Your task to perform on an android device: Show the shopping cart on bestbuy. Add "asus zenbook" to the cart on bestbuy, then select checkout. Image 0: 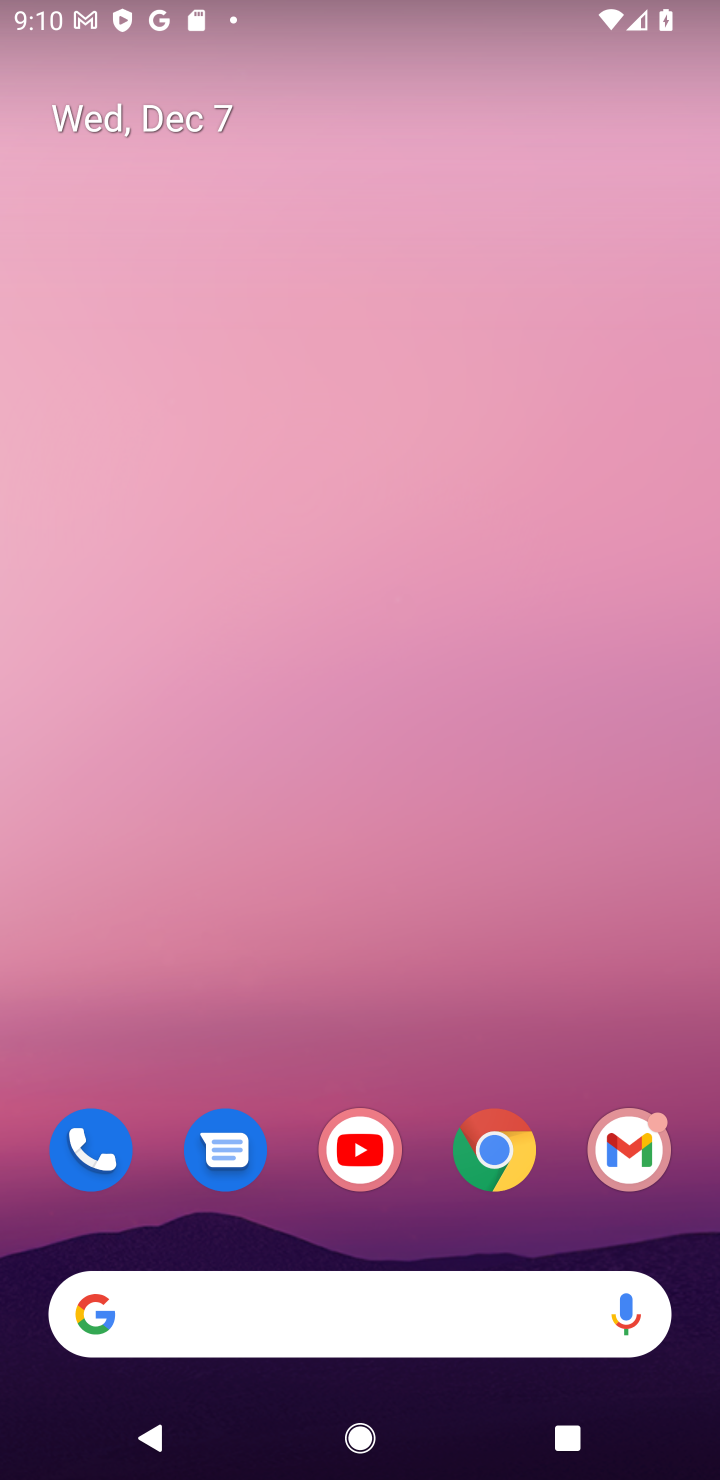
Step 0: click (497, 1160)
Your task to perform on an android device: Show the shopping cart on bestbuy. Add "asus zenbook" to the cart on bestbuy, then select checkout. Image 1: 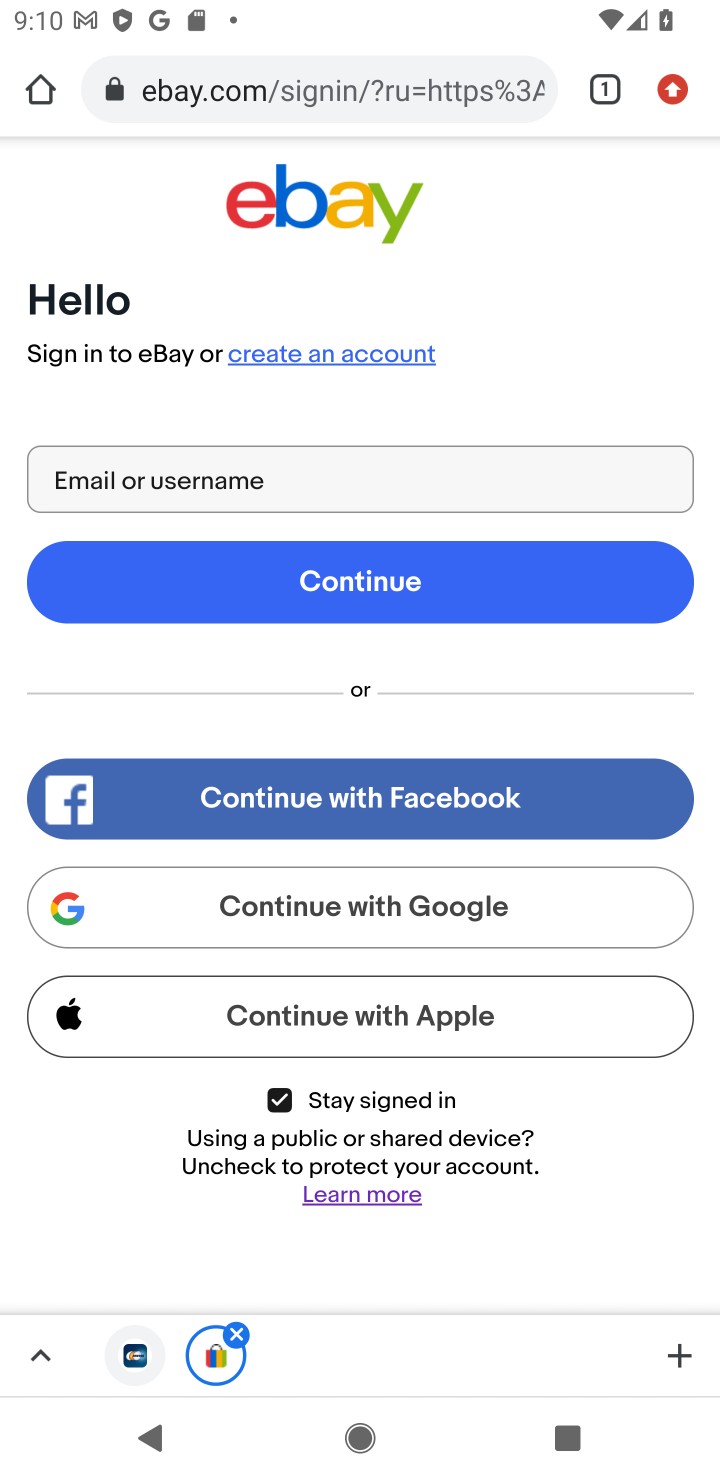
Step 1: click (286, 92)
Your task to perform on an android device: Show the shopping cart on bestbuy. Add "asus zenbook" to the cart on bestbuy, then select checkout. Image 2: 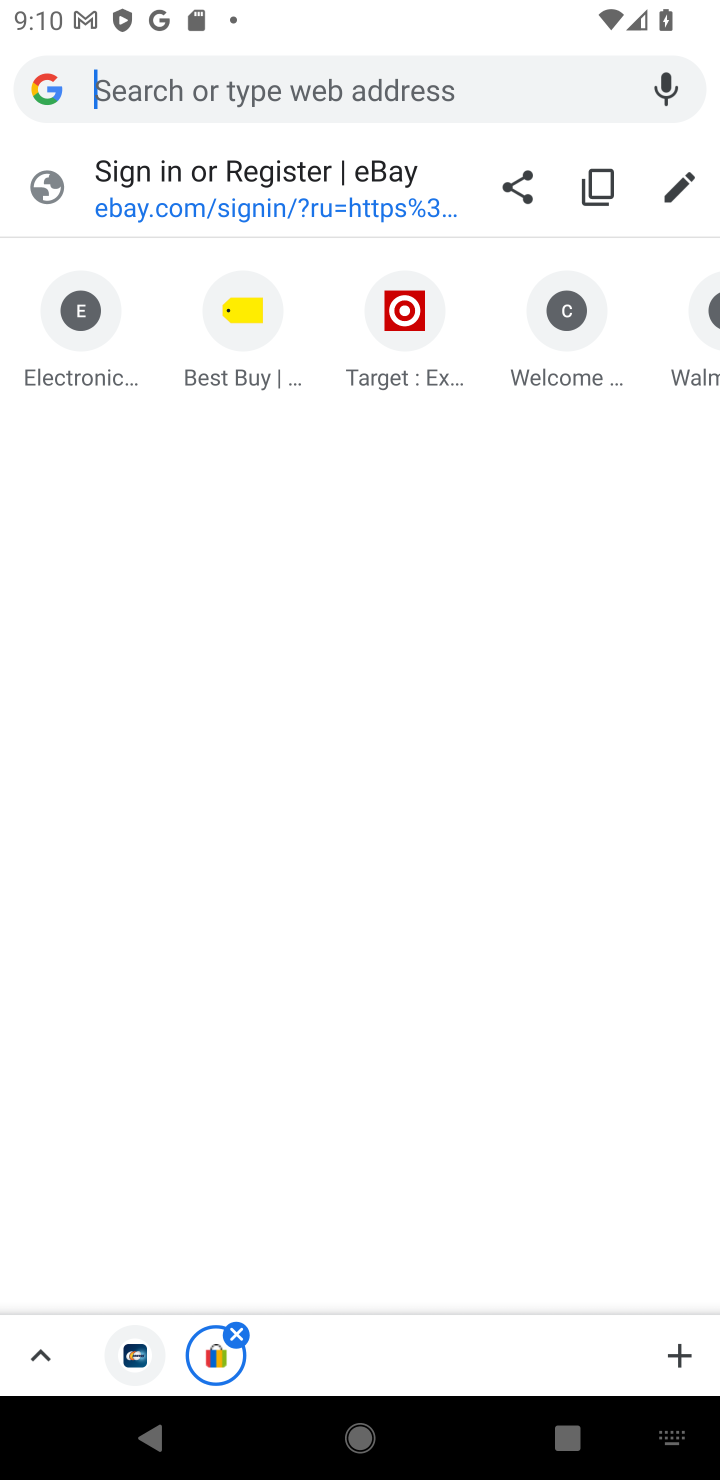
Step 2: click (260, 356)
Your task to perform on an android device: Show the shopping cart on bestbuy. Add "asus zenbook" to the cart on bestbuy, then select checkout. Image 3: 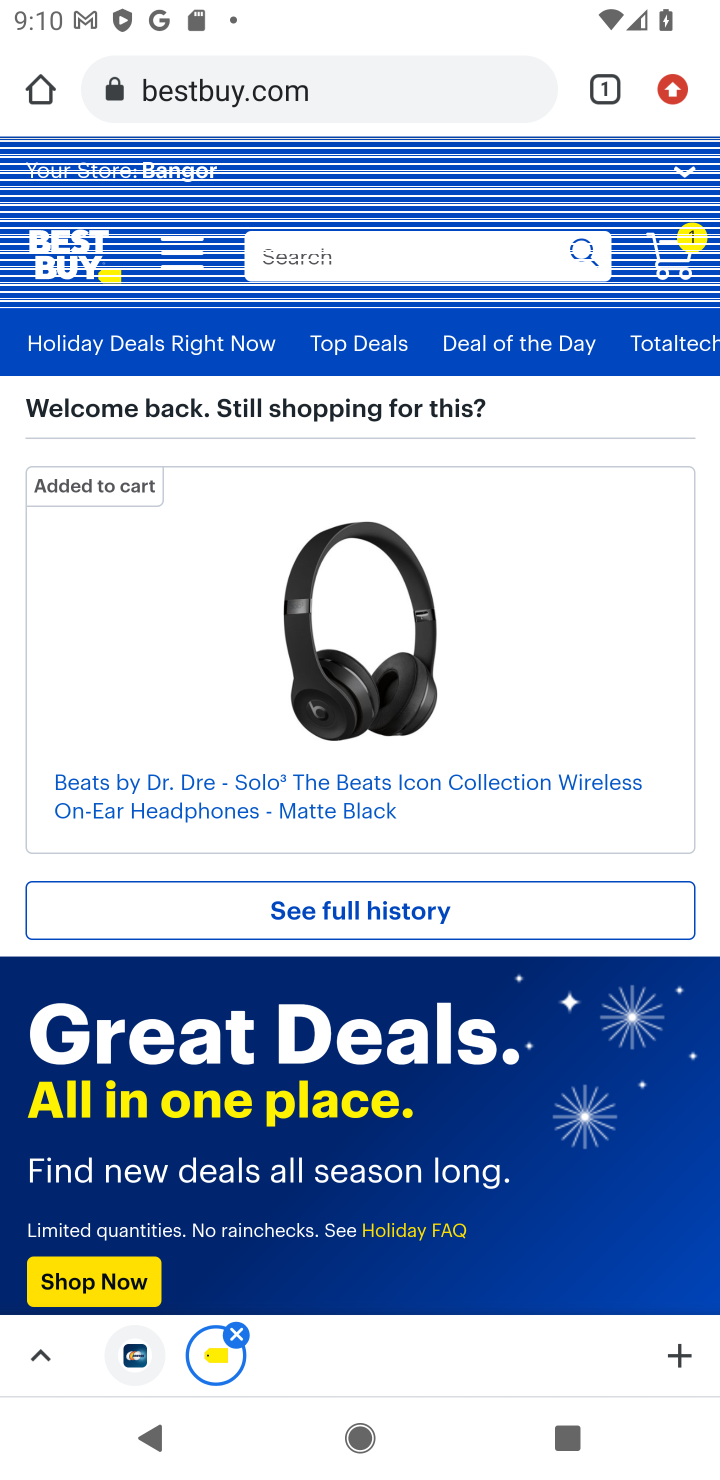
Step 3: click (665, 266)
Your task to perform on an android device: Show the shopping cart on bestbuy. Add "asus zenbook" to the cart on bestbuy, then select checkout. Image 4: 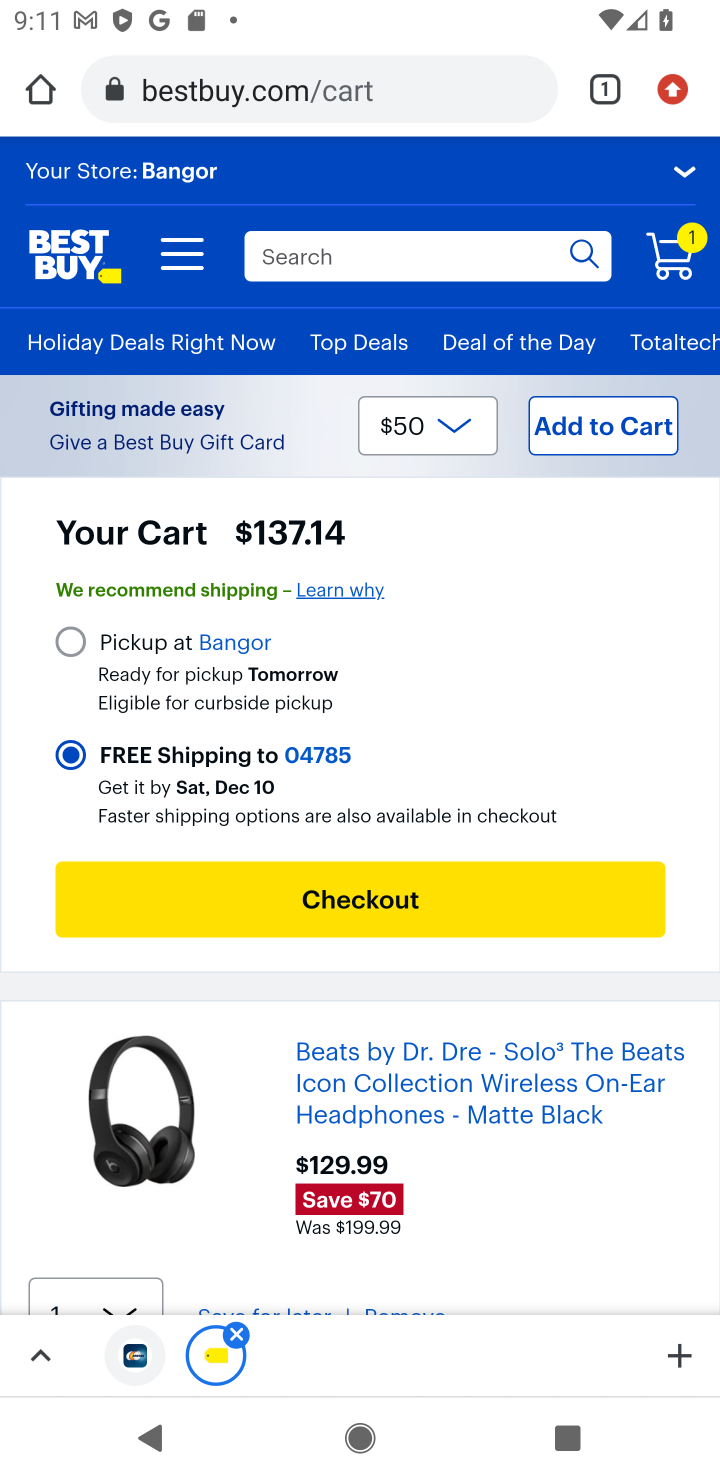
Step 4: click (377, 265)
Your task to perform on an android device: Show the shopping cart on bestbuy. Add "asus zenbook" to the cart on bestbuy, then select checkout. Image 5: 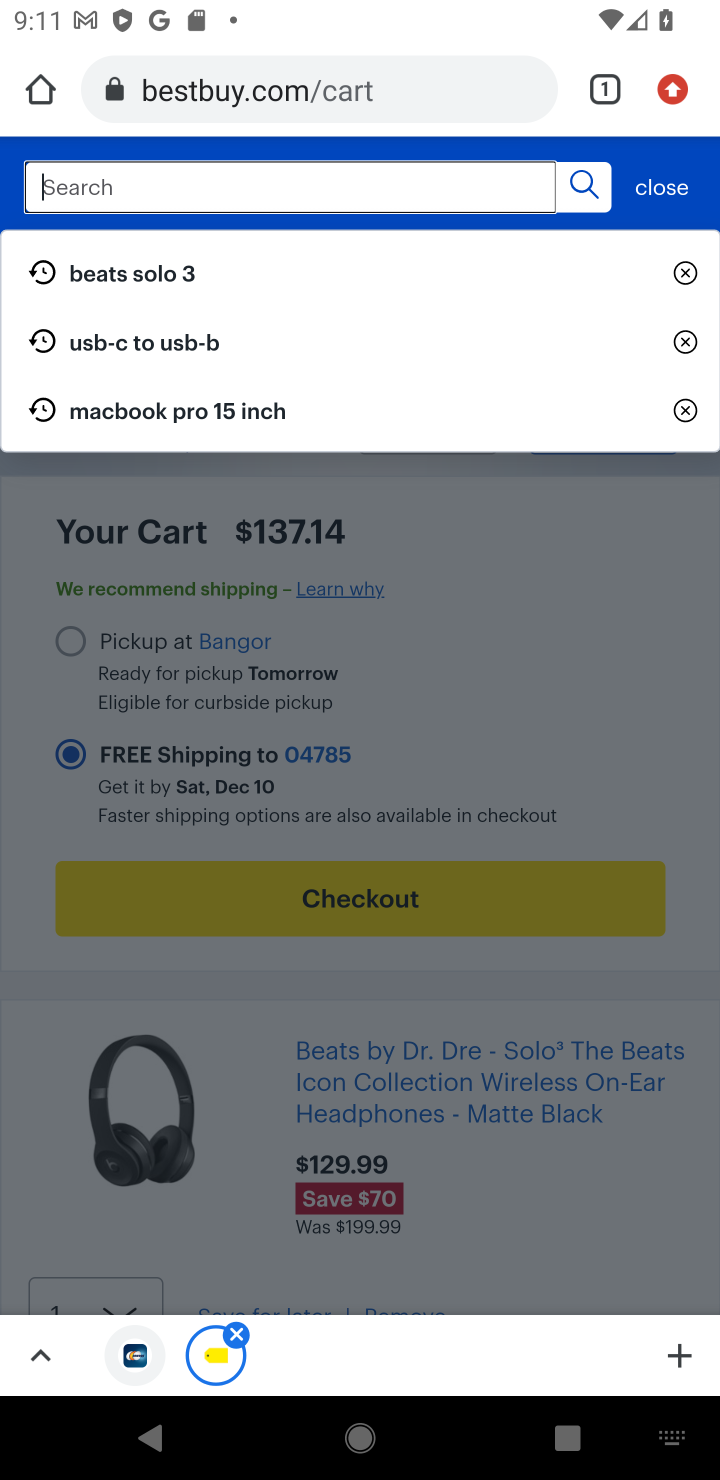
Step 5: type "asus zenbook"
Your task to perform on an android device: Show the shopping cart on bestbuy. Add "asus zenbook" to the cart on bestbuy, then select checkout. Image 6: 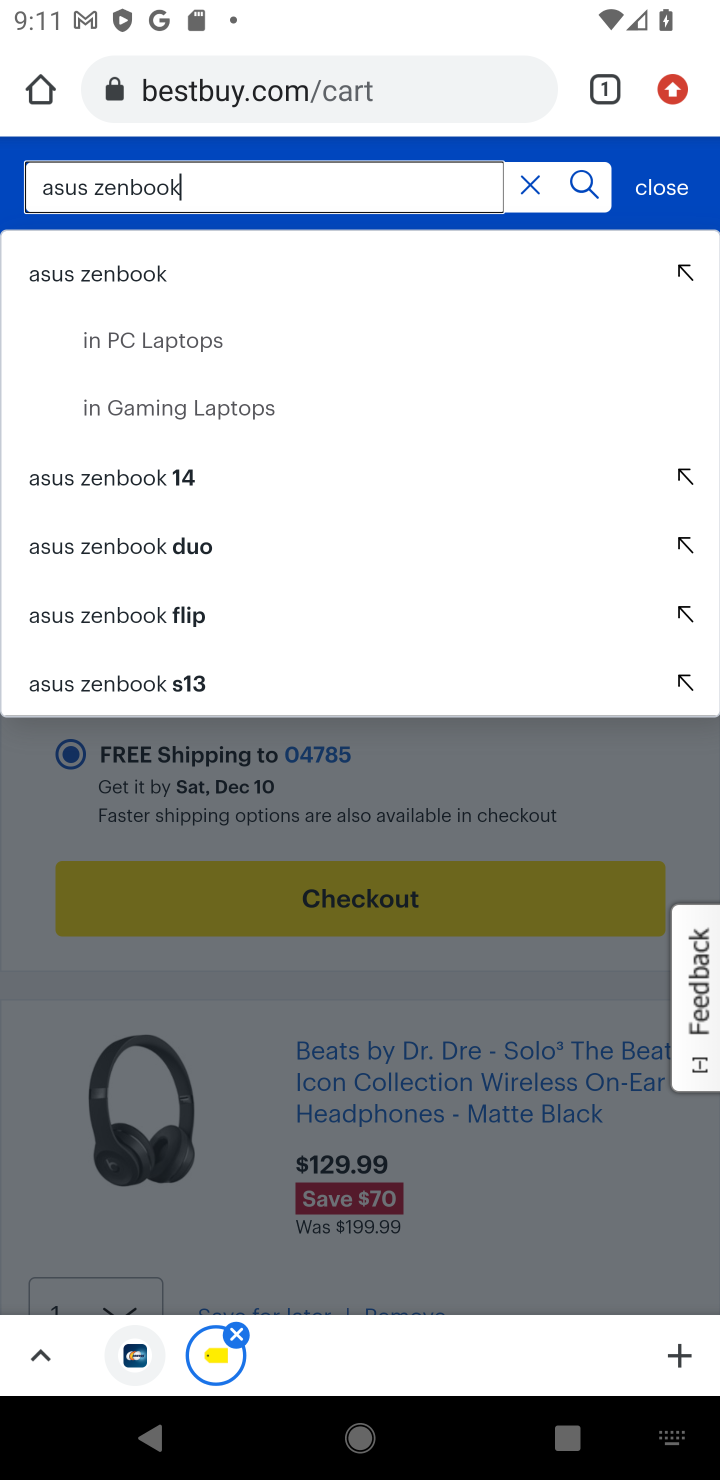
Step 6: press enter
Your task to perform on an android device: Show the shopping cart on bestbuy. Add "asus zenbook" to the cart on bestbuy, then select checkout. Image 7: 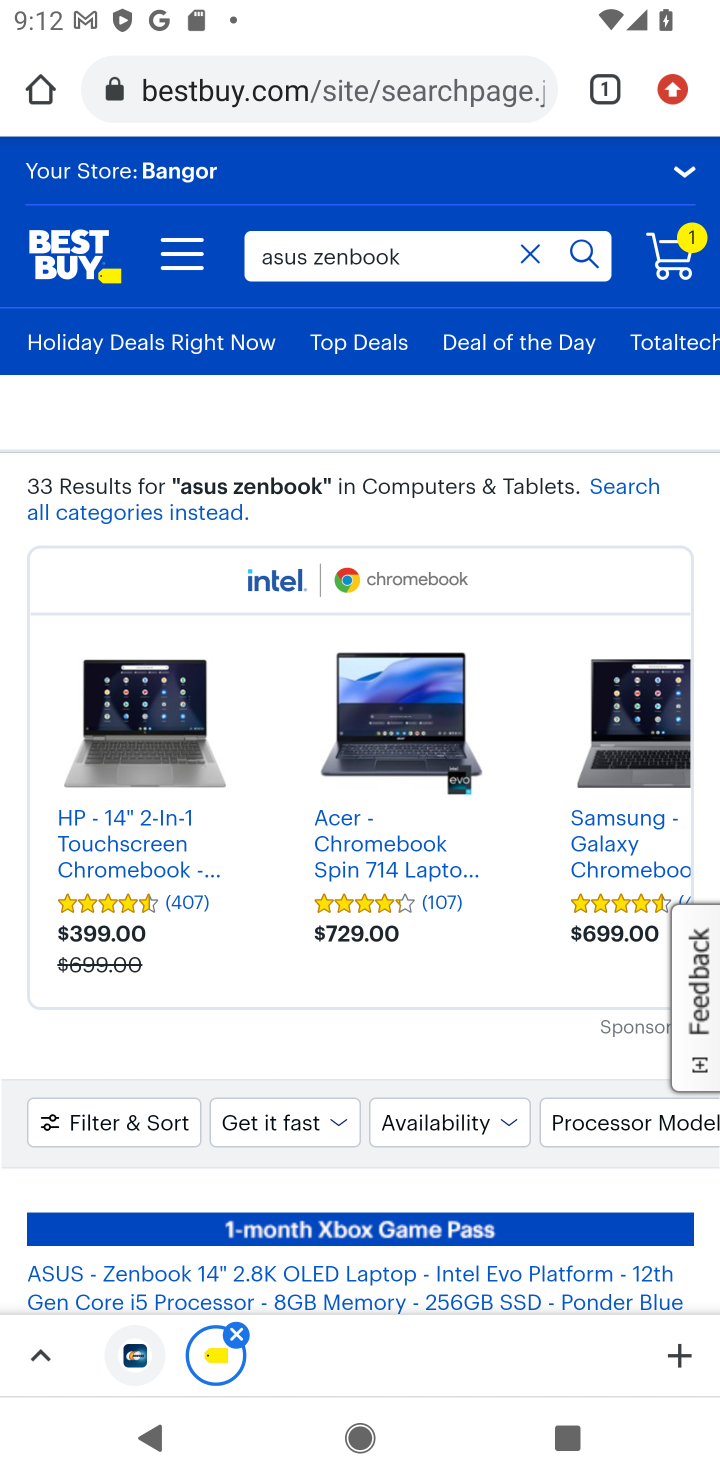
Step 7: drag from (462, 1104) to (595, 418)
Your task to perform on an android device: Show the shopping cart on bestbuy. Add "asus zenbook" to the cart on bestbuy, then select checkout. Image 8: 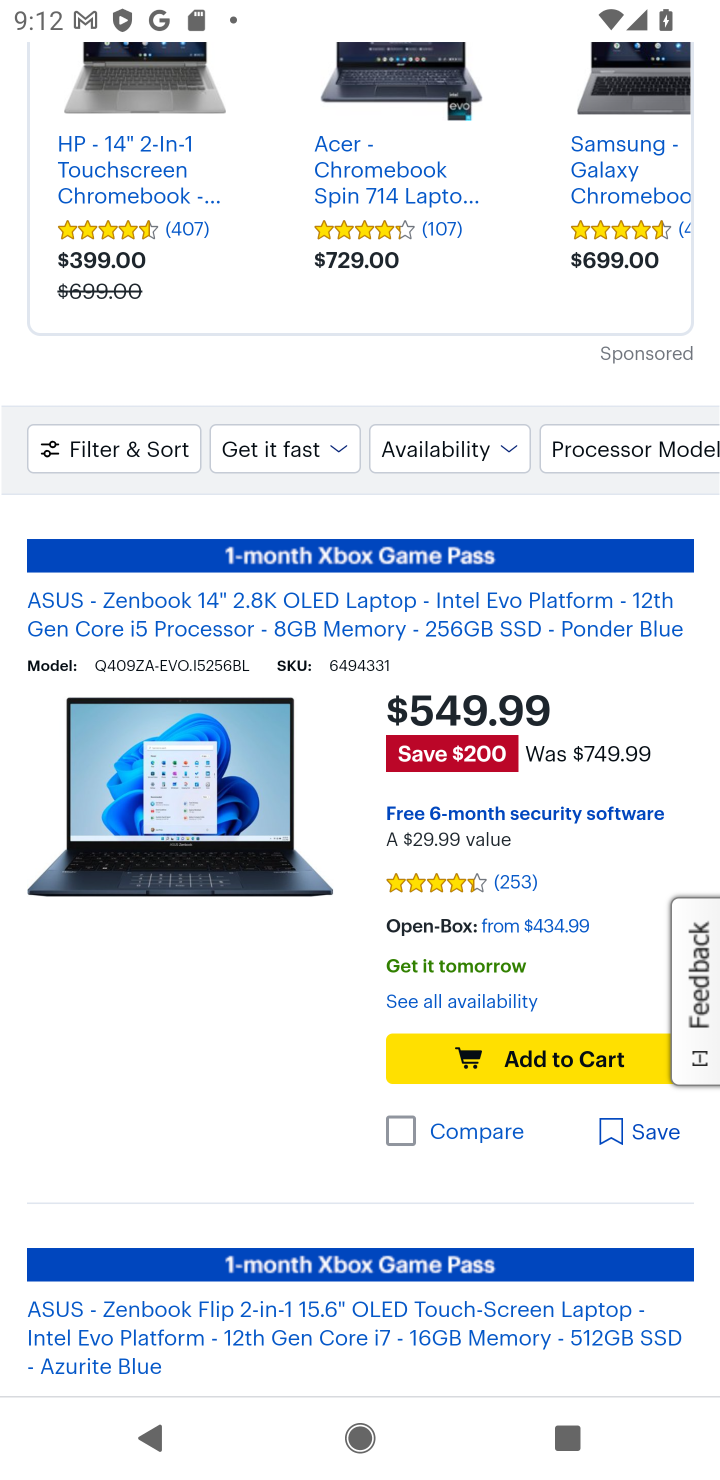
Step 8: click (508, 1068)
Your task to perform on an android device: Show the shopping cart on bestbuy. Add "asus zenbook" to the cart on bestbuy, then select checkout. Image 9: 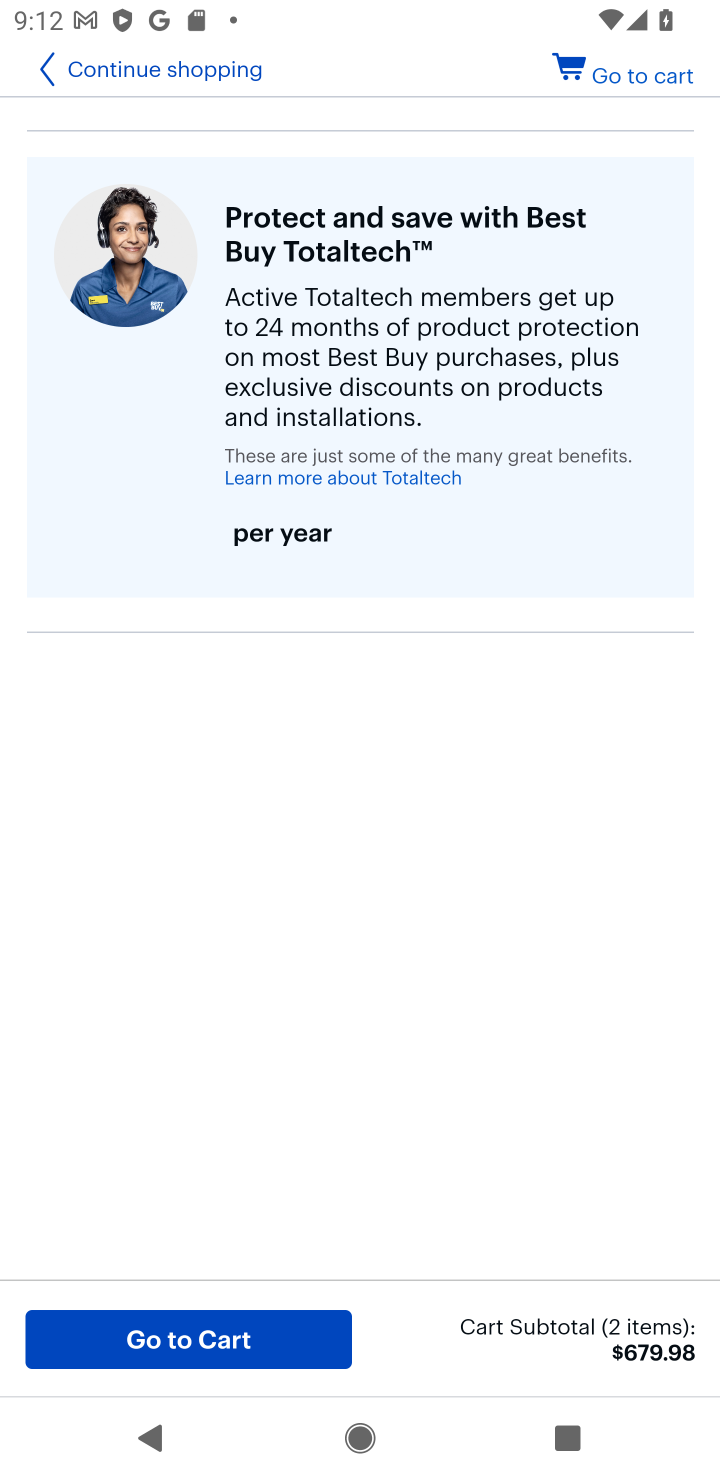
Step 9: click (241, 1361)
Your task to perform on an android device: Show the shopping cart on bestbuy. Add "asus zenbook" to the cart on bestbuy, then select checkout. Image 10: 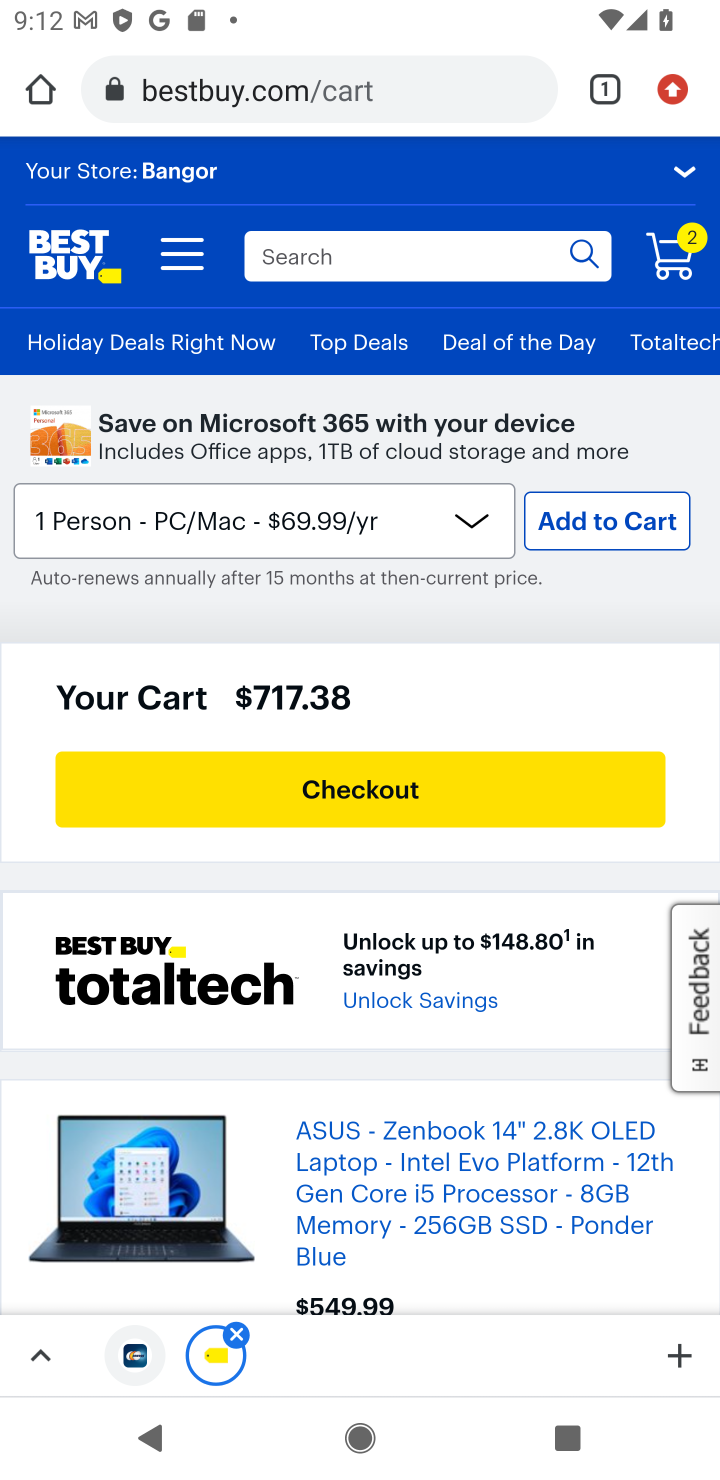
Step 10: click (413, 789)
Your task to perform on an android device: Show the shopping cart on bestbuy. Add "asus zenbook" to the cart on bestbuy, then select checkout. Image 11: 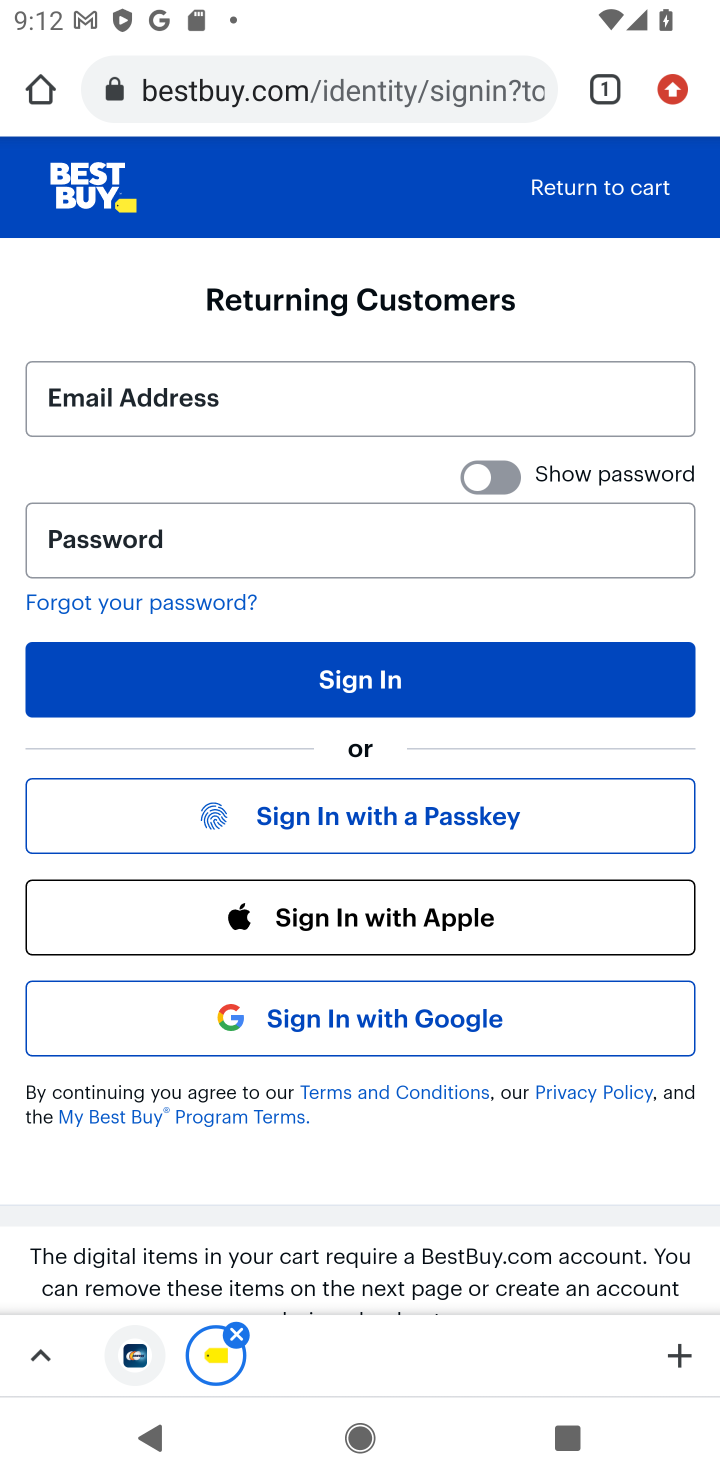
Step 11: task complete